Your task to perform on an android device: turn off priority inbox in the gmail app Image 0: 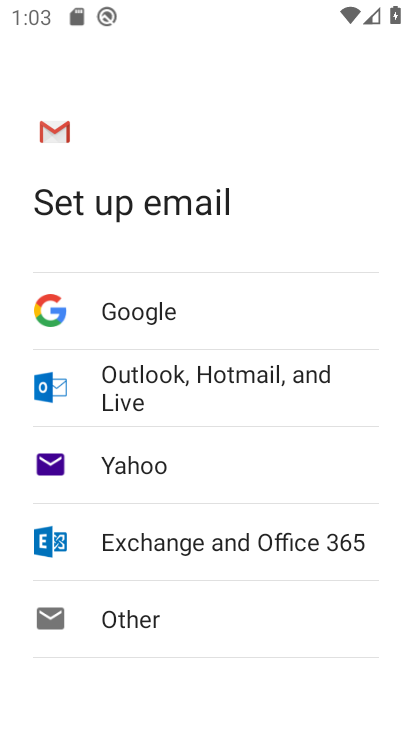
Step 0: press home button
Your task to perform on an android device: turn off priority inbox in the gmail app Image 1: 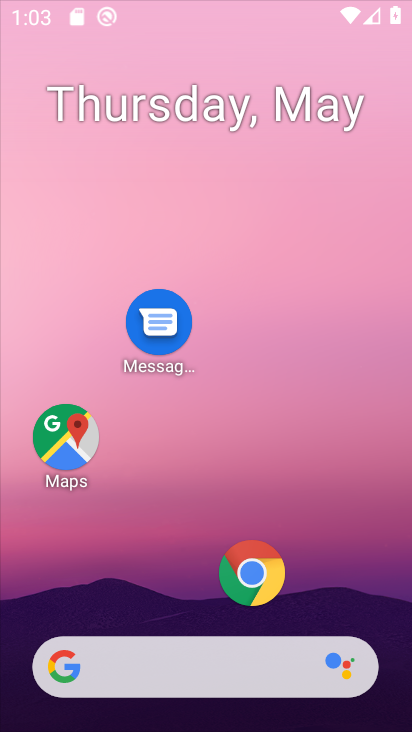
Step 1: drag from (215, 660) to (274, 227)
Your task to perform on an android device: turn off priority inbox in the gmail app Image 2: 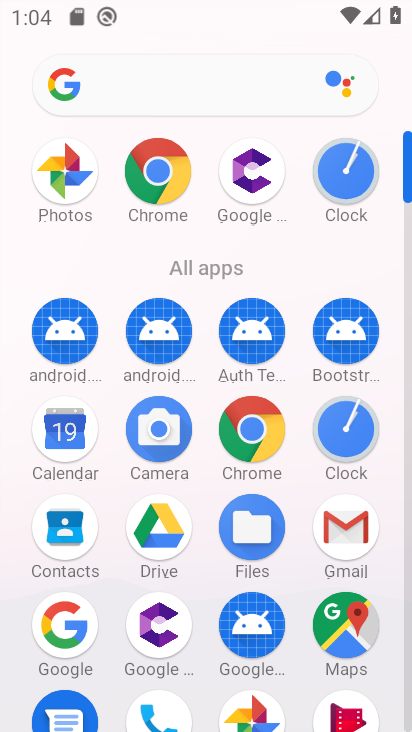
Step 2: click (344, 514)
Your task to perform on an android device: turn off priority inbox in the gmail app Image 3: 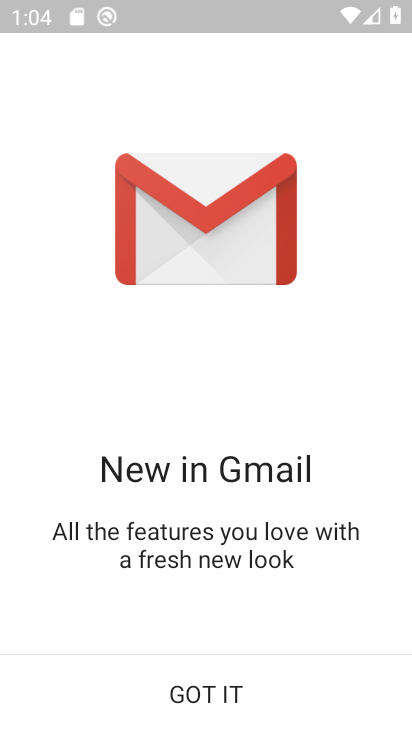
Step 3: click (199, 709)
Your task to perform on an android device: turn off priority inbox in the gmail app Image 4: 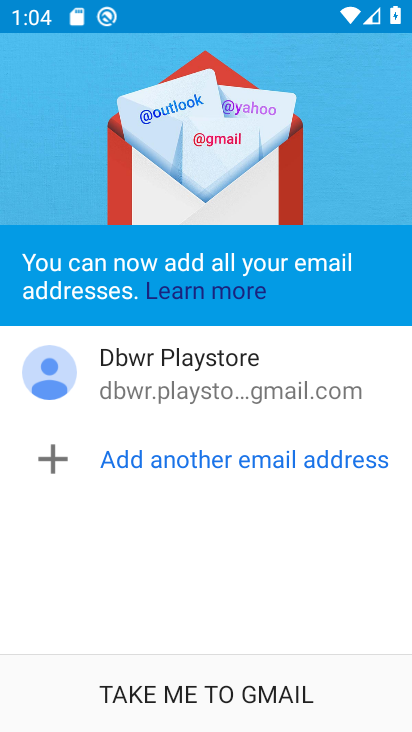
Step 4: click (164, 682)
Your task to perform on an android device: turn off priority inbox in the gmail app Image 5: 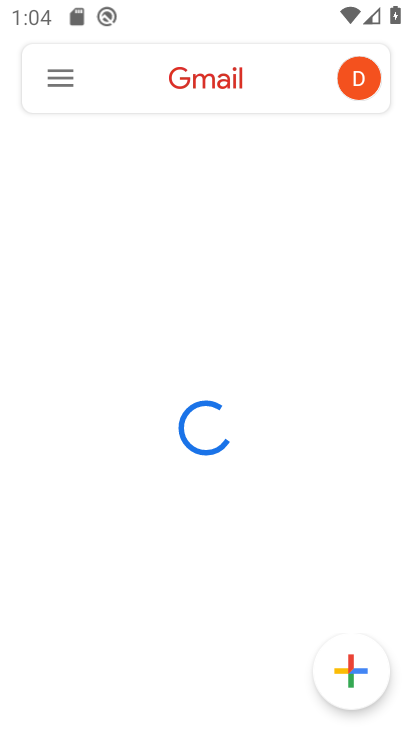
Step 5: click (40, 72)
Your task to perform on an android device: turn off priority inbox in the gmail app Image 6: 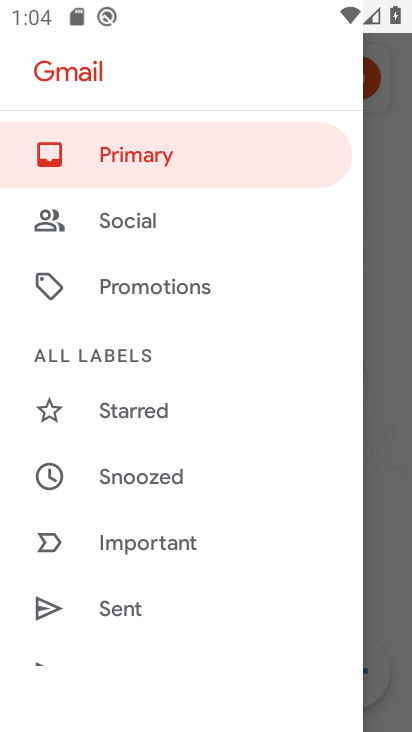
Step 6: drag from (172, 585) to (268, 108)
Your task to perform on an android device: turn off priority inbox in the gmail app Image 7: 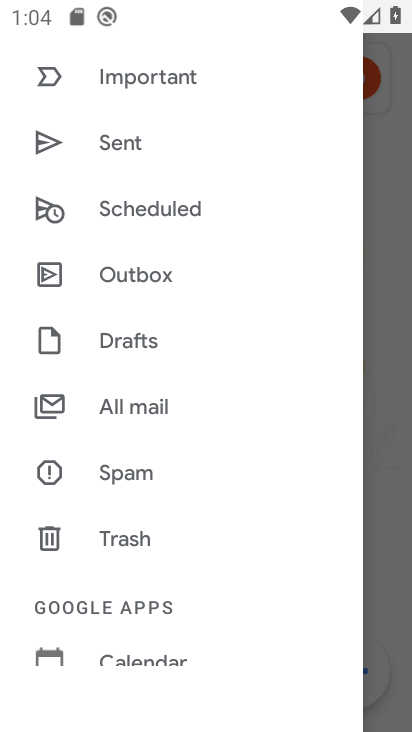
Step 7: drag from (155, 621) to (210, 141)
Your task to perform on an android device: turn off priority inbox in the gmail app Image 8: 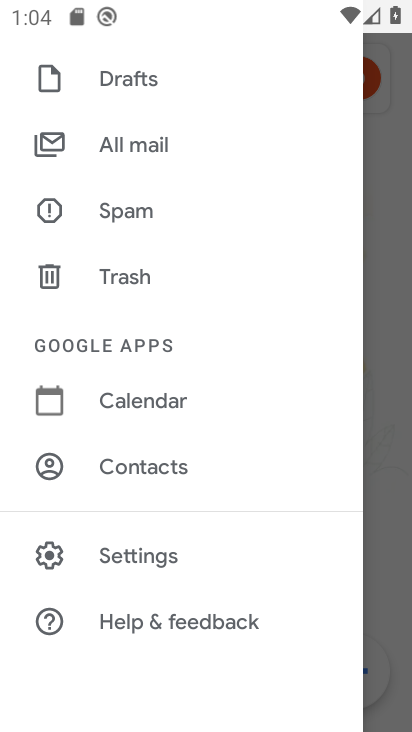
Step 8: click (135, 554)
Your task to perform on an android device: turn off priority inbox in the gmail app Image 9: 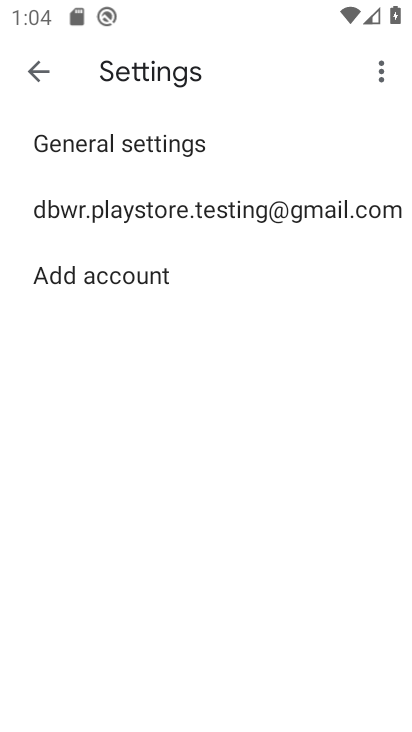
Step 9: click (85, 204)
Your task to perform on an android device: turn off priority inbox in the gmail app Image 10: 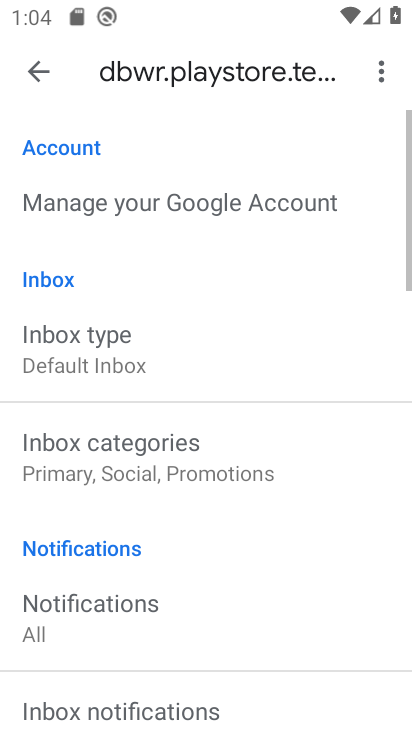
Step 10: click (95, 380)
Your task to perform on an android device: turn off priority inbox in the gmail app Image 11: 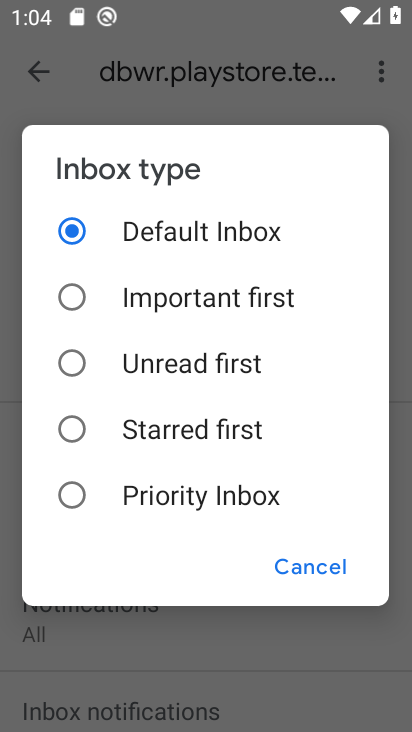
Step 11: task complete